Your task to perform on an android device: Go to display settings Image 0: 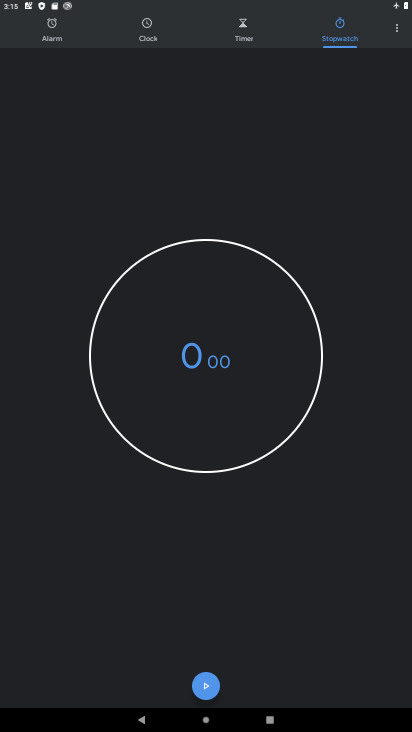
Step 0: press home button
Your task to perform on an android device: Go to display settings Image 1: 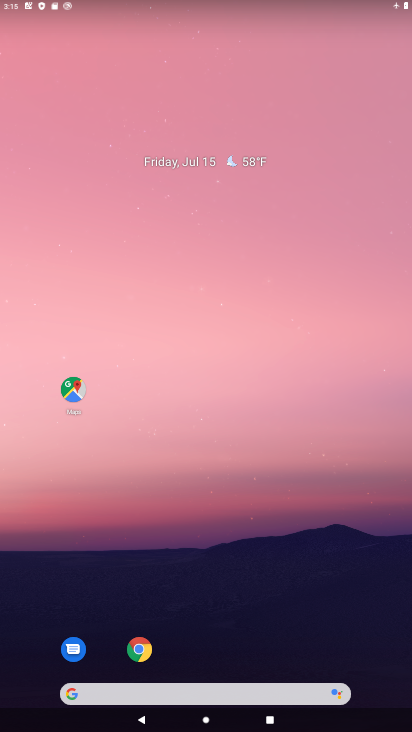
Step 1: drag from (239, 584) to (232, 118)
Your task to perform on an android device: Go to display settings Image 2: 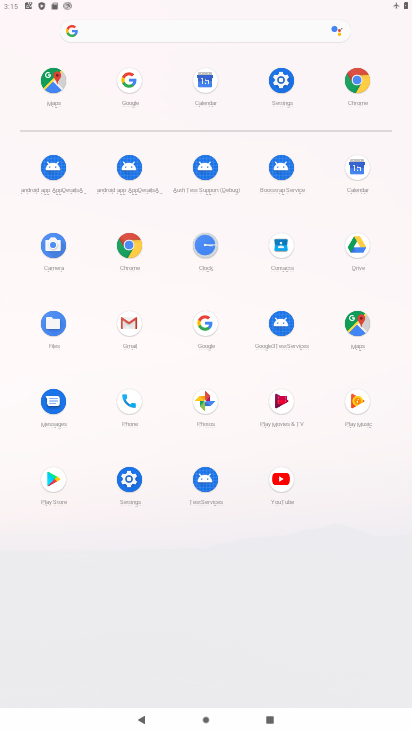
Step 2: click (287, 74)
Your task to perform on an android device: Go to display settings Image 3: 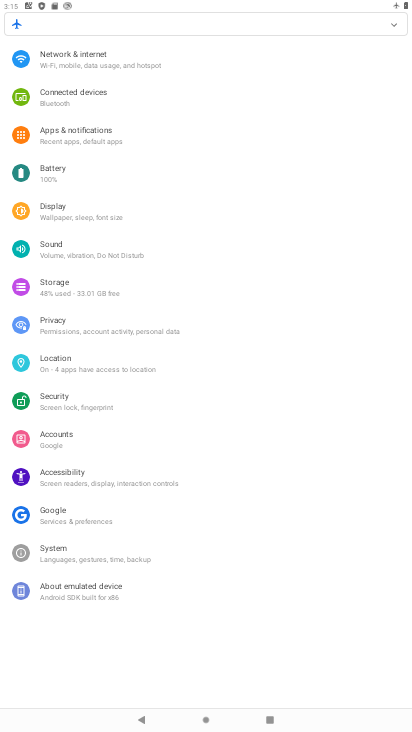
Step 3: click (57, 209)
Your task to perform on an android device: Go to display settings Image 4: 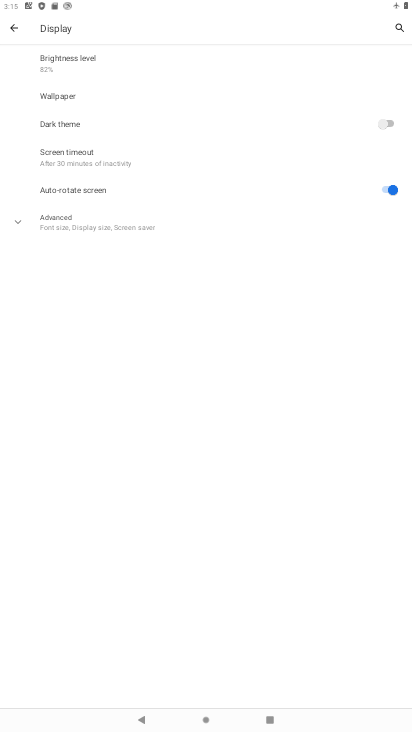
Step 4: task complete